Your task to perform on an android device: clear history in the chrome app Image 0: 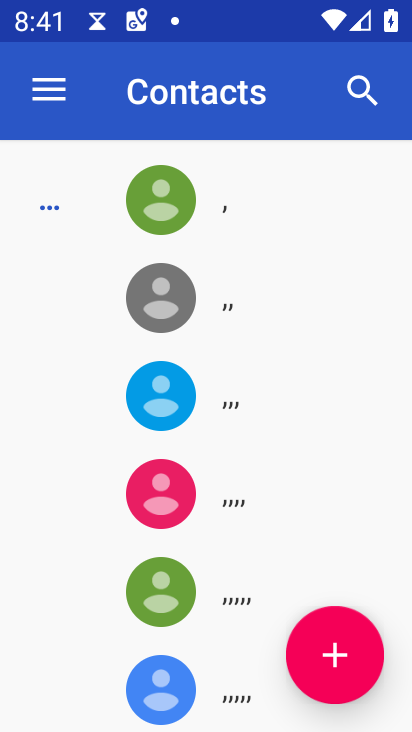
Step 0: press home button
Your task to perform on an android device: clear history in the chrome app Image 1: 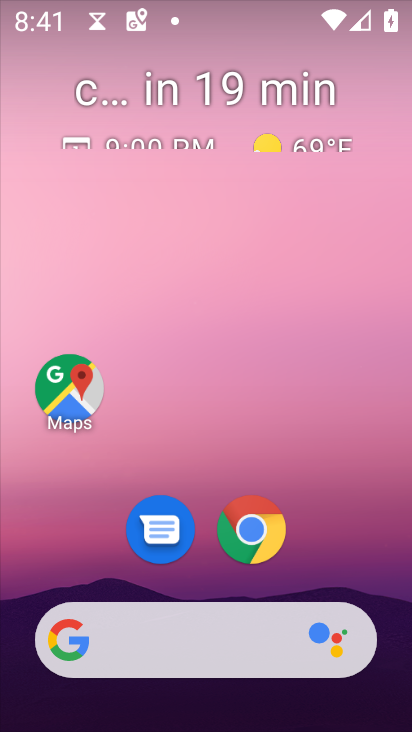
Step 1: click (239, 530)
Your task to perform on an android device: clear history in the chrome app Image 2: 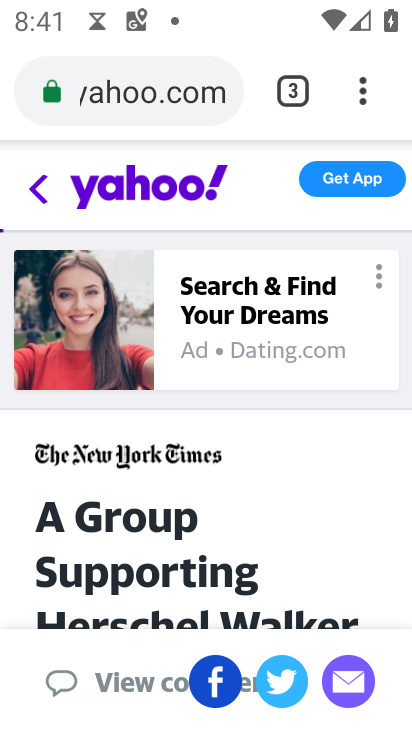
Step 2: click (381, 80)
Your task to perform on an android device: clear history in the chrome app Image 3: 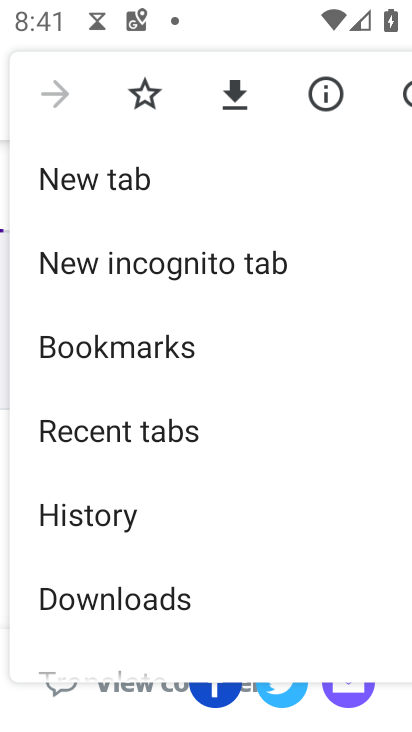
Step 3: drag from (272, 482) to (234, 132)
Your task to perform on an android device: clear history in the chrome app Image 4: 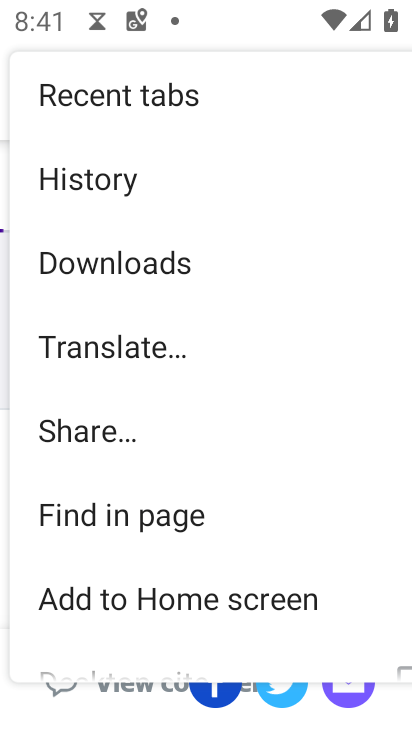
Step 4: drag from (239, 491) to (221, 79)
Your task to perform on an android device: clear history in the chrome app Image 5: 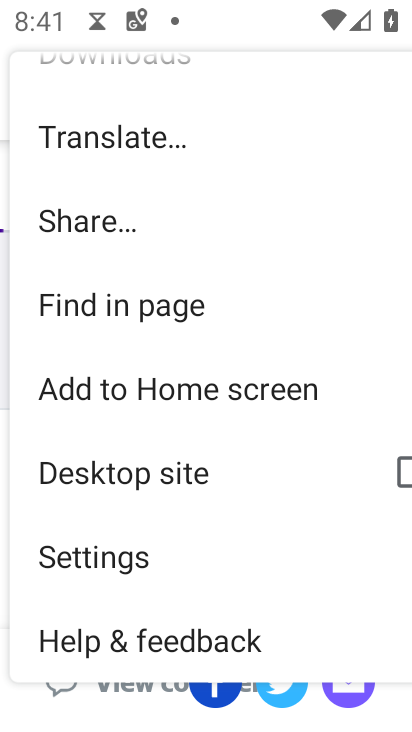
Step 5: click (151, 561)
Your task to perform on an android device: clear history in the chrome app Image 6: 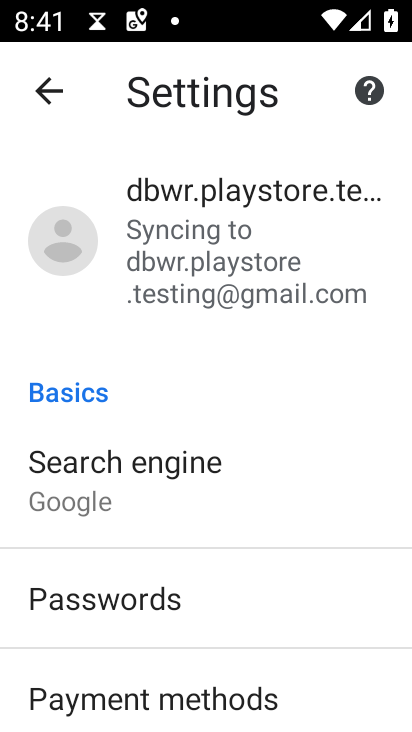
Step 6: drag from (190, 646) to (200, 177)
Your task to perform on an android device: clear history in the chrome app Image 7: 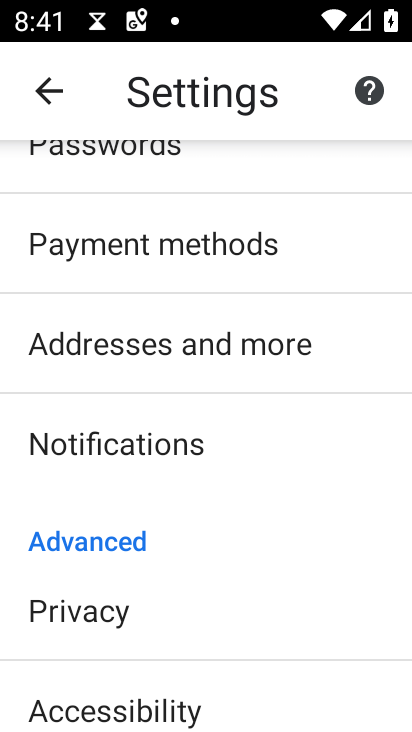
Step 7: drag from (195, 576) to (201, 111)
Your task to perform on an android device: clear history in the chrome app Image 8: 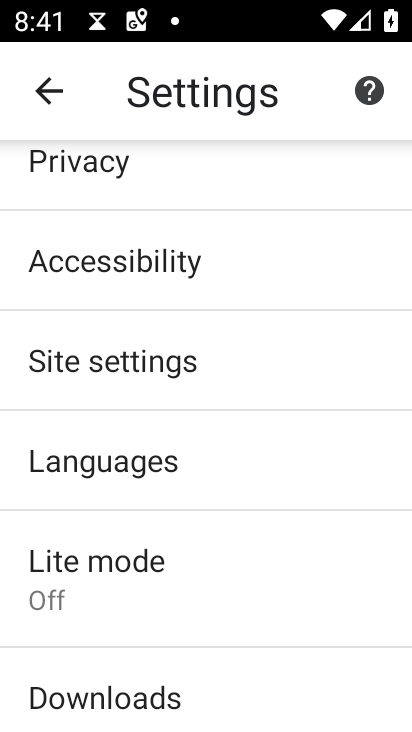
Step 8: click (135, 170)
Your task to perform on an android device: clear history in the chrome app Image 9: 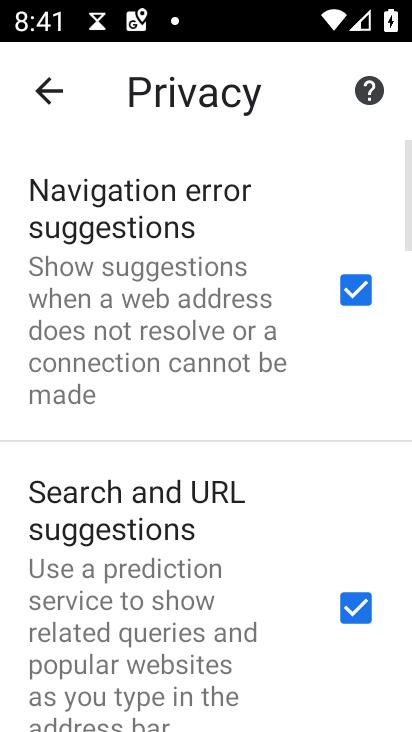
Step 9: drag from (148, 607) to (145, 77)
Your task to perform on an android device: clear history in the chrome app Image 10: 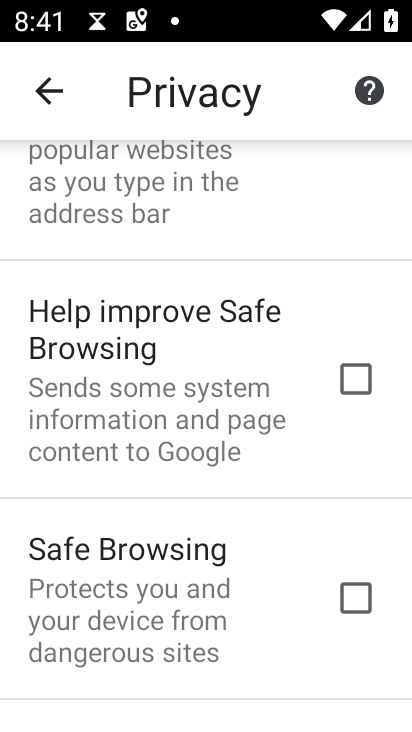
Step 10: drag from (158, 581) to (139, 111)
Your task to perform on an android device: clear history in the chrome app Image 11: 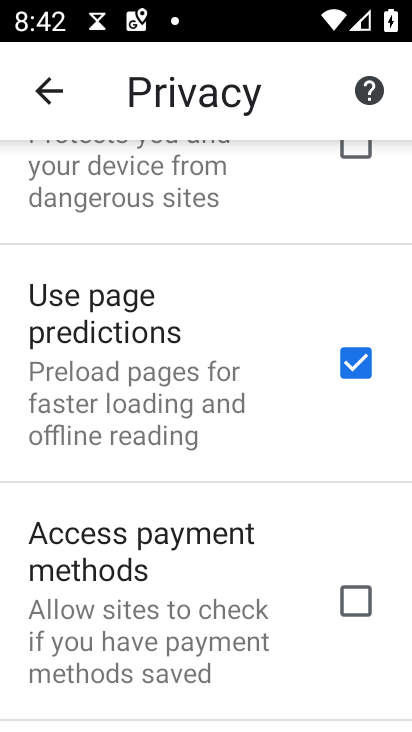
Step 11: drag from (119, 558) to (190, 118)
Your task to perform on an android device: clear history in the chrome app Image 12: 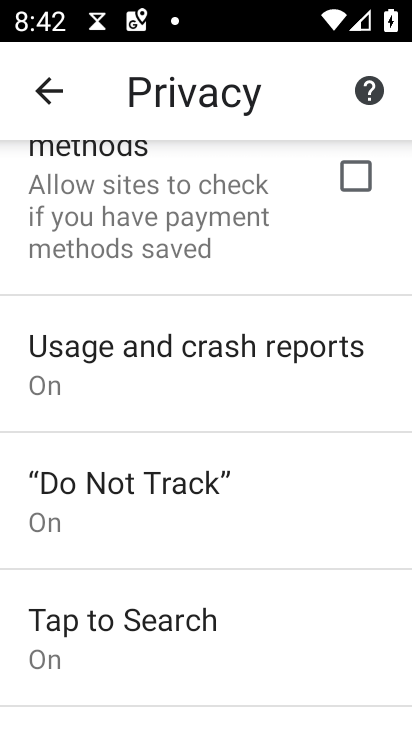
Step 12: drag from (164, 634) to (177, 156)
Your task to perform on an android device: clear history in the chrome app Image 13: 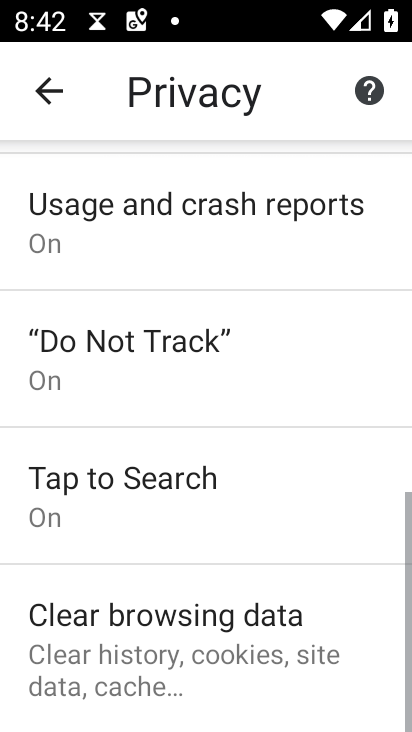
Step 13: click (162, 631)
Your task to perform on an android device: clear history in the chrome app Image 14: 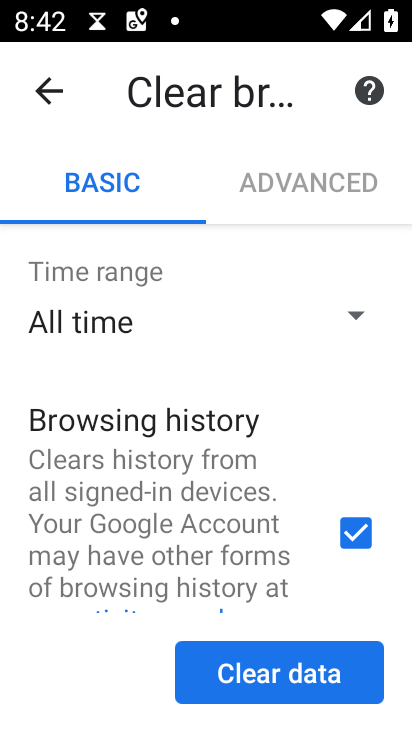
Step 14: drag from (214, 516) to (195, 239)
Your task to perform on an android device: clear history in the chrome app Image 15: 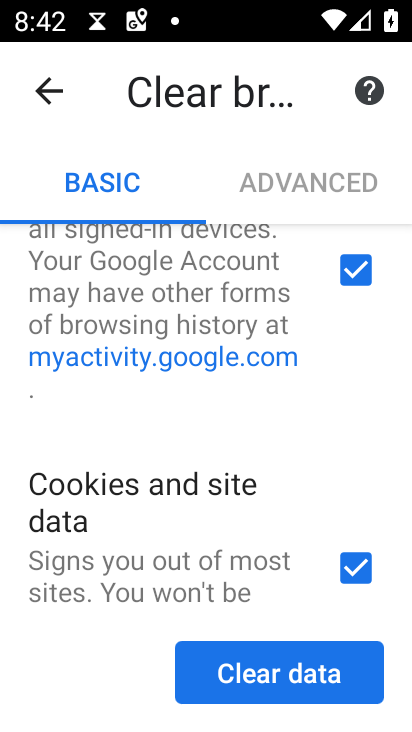
Step 15: drag from (155, 573) to (148, 290)
Your task to perform on an android device: clear history in the chrome app Image 16: 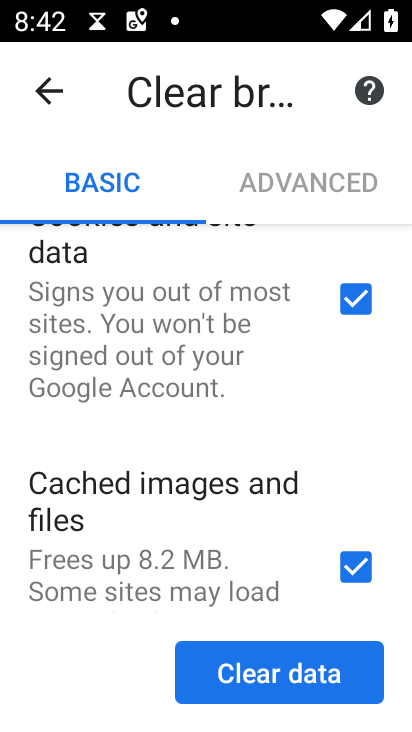
Step 16: click (370, 285)
Your task to perform on an android device: clear history in the chrome app Image 17: 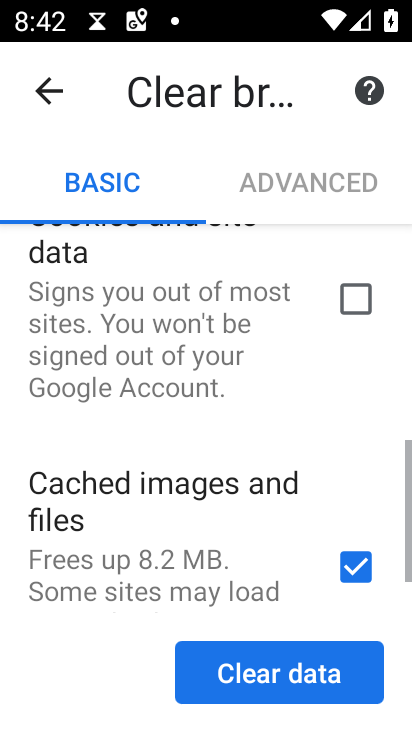
Step 17: click (336, 572)
Your task to perform on an android device: clear history in the chrome app Image 18: 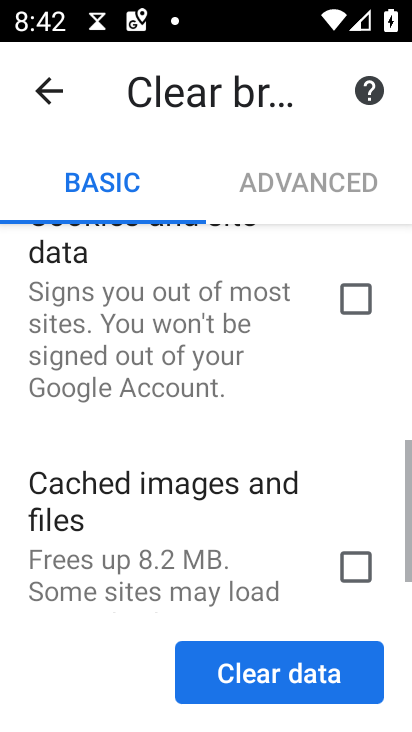
Step 18: drag from (234, 566) to (215, 217)
Your task to perform on an android device: clear history in the chrome app Image 19: 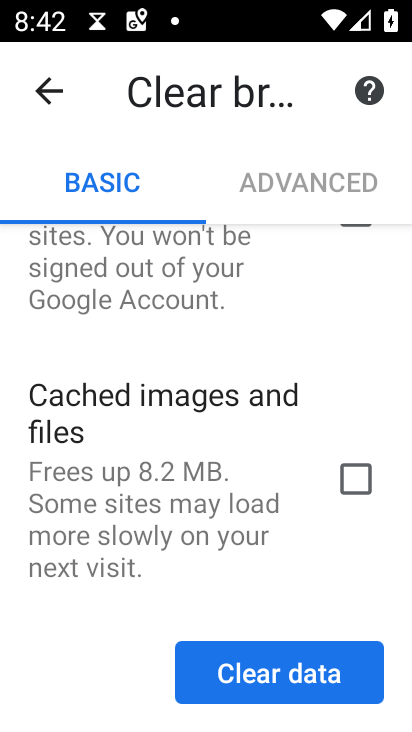
Step 19: click (259, 682)
Your task to perform on an android device: clear history in the chrome app Image 20: 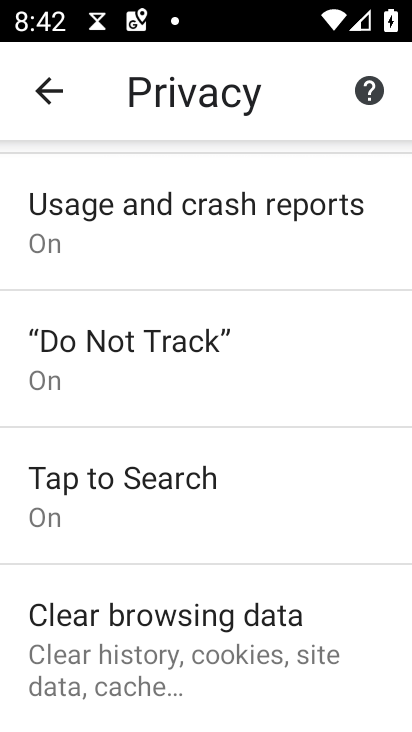
Step 20: click (236, 665)
Your task to perform on an android device: clear history in the chrome app Image 21: 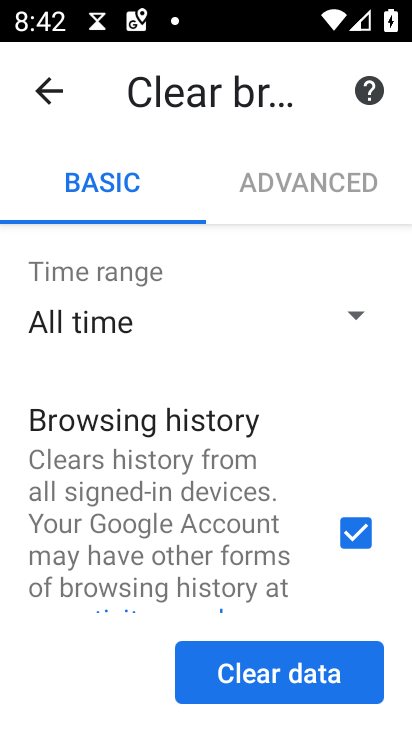
Step 21: click (256, 674)
Your task to perform on an android device: clear history in the chrome app Image 22: 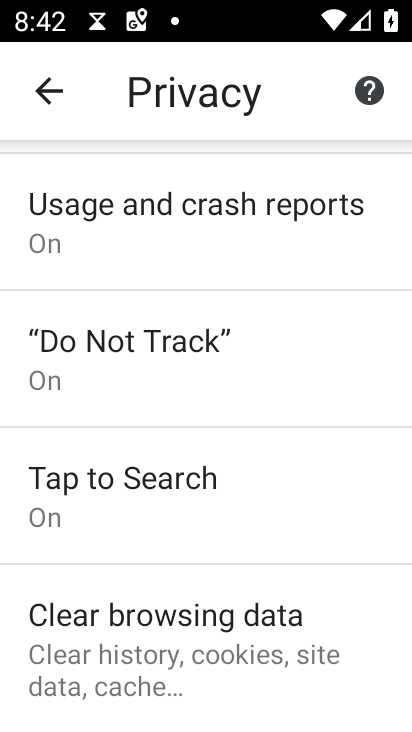
Step 22: task complete